Your task to perform on an android device: Clear the cart on ebay.com. Search for usb-a to usb-b on ebay.com, select the first entry, and add it to the cart. Image 0: 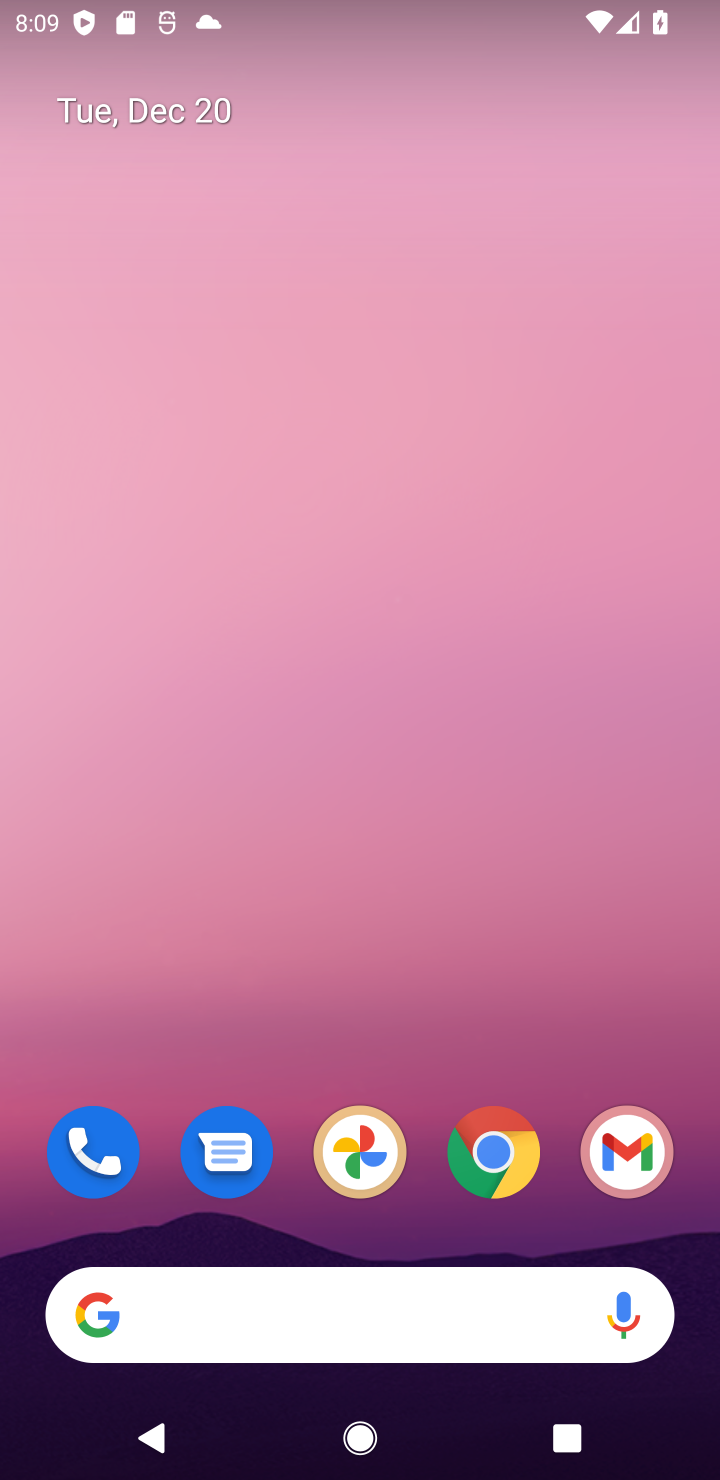
Step 0: click (507, 1153)
Your task to perform on an android device: Clear the cart on ebay.com. Search for usb-a to usb-b on ebay.com, select the first entry, and add it to the cart. Image 1: 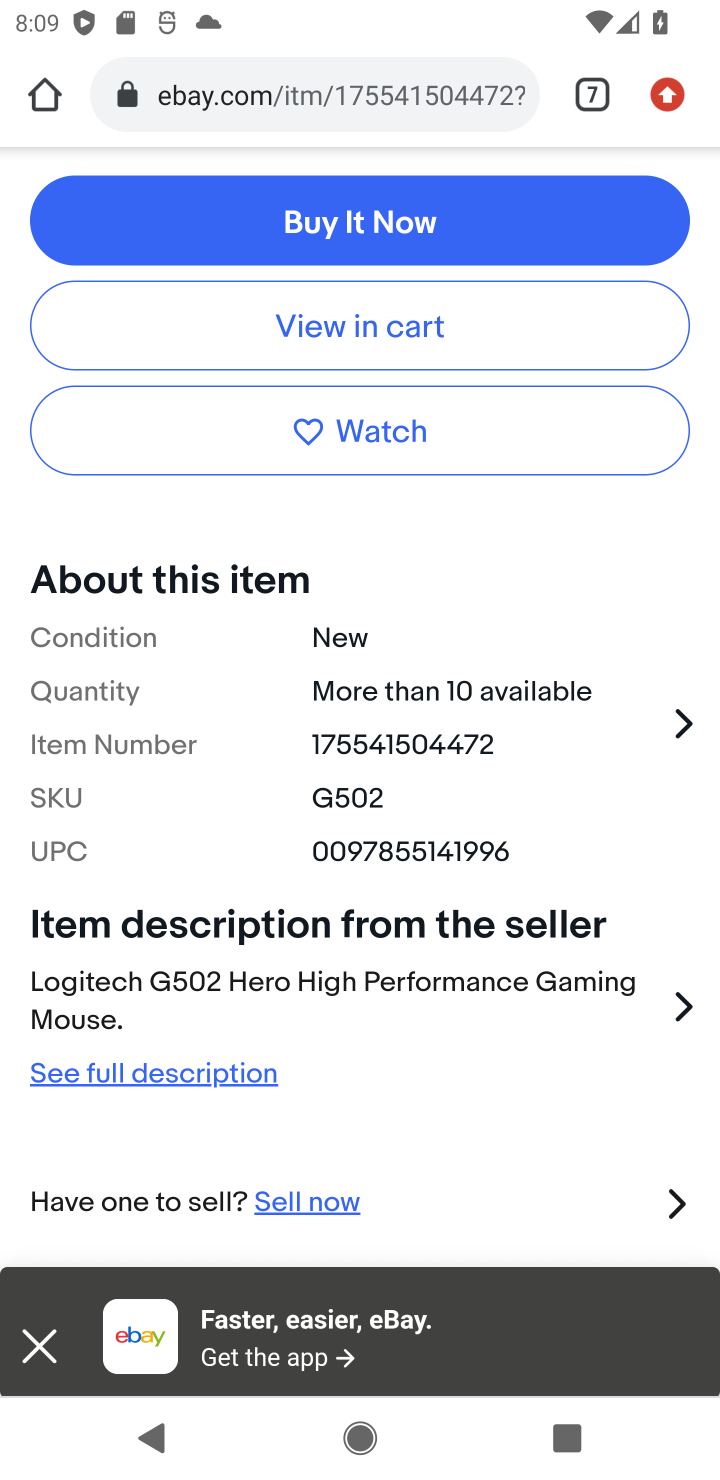
Step 1: click (500, 328)
Your task to perform on an android device: Clear the cart on ebay.com. Search for usb-a to usb-b on ebay.com, select the first entry, and add it to the cart. Image 2: 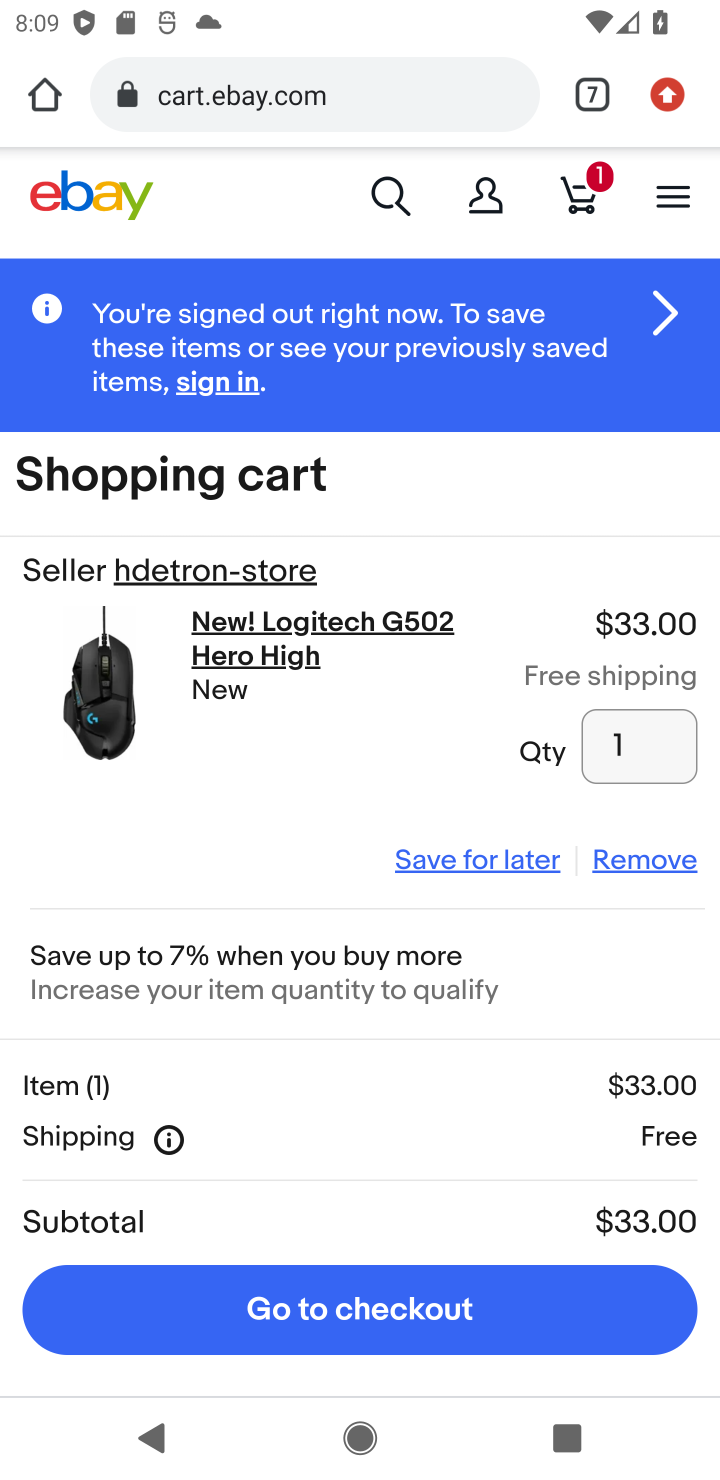
Step 2: click (637, 856)
Your task to perform on an android device: Clear the cart on ebay.com. Search for usb-a to usb-b on ebay.com, select the first entry, and add it to the cart. Image 3: 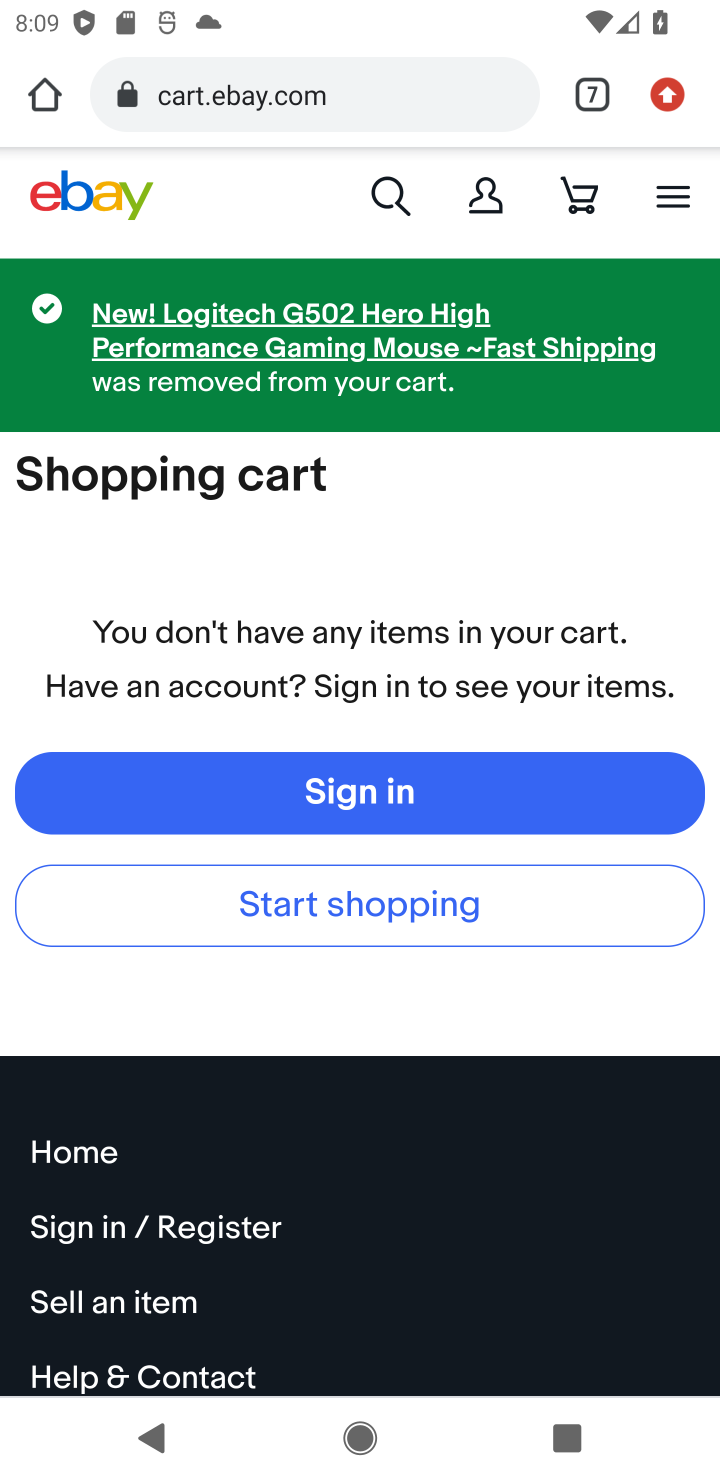
Step 3: click (386, 191)
Your task to perform on an android device: Clear the cart on ebay.com. Search for usb-a to usb-b on ebay.com, select the first entry, and add it to the cart. Image 4: 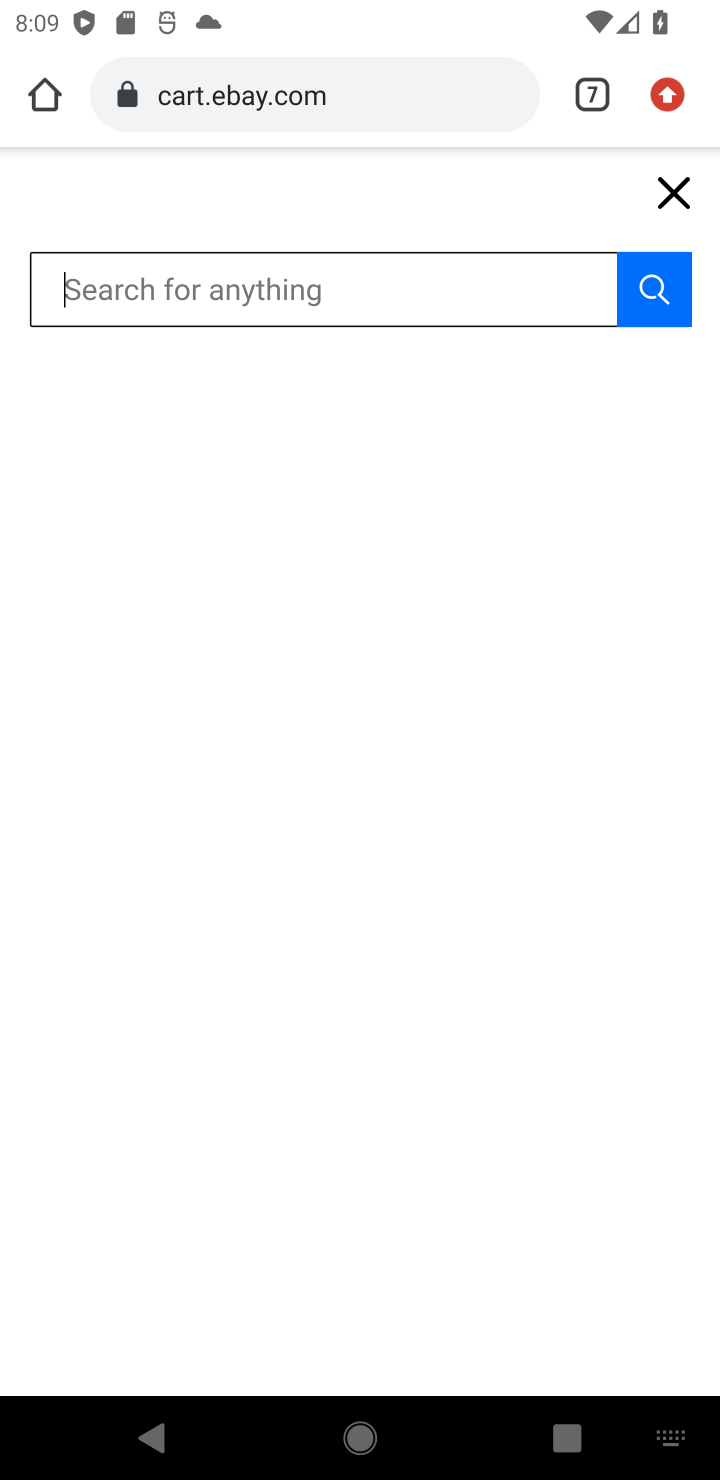
Step 4: type "usb-a to usb-b"
Your task to perform on an android device: Clear the cart on ebay.com. Search for usb-a to usb-b on ebay.com, select the first entry, and add it to the cart. Image 5: 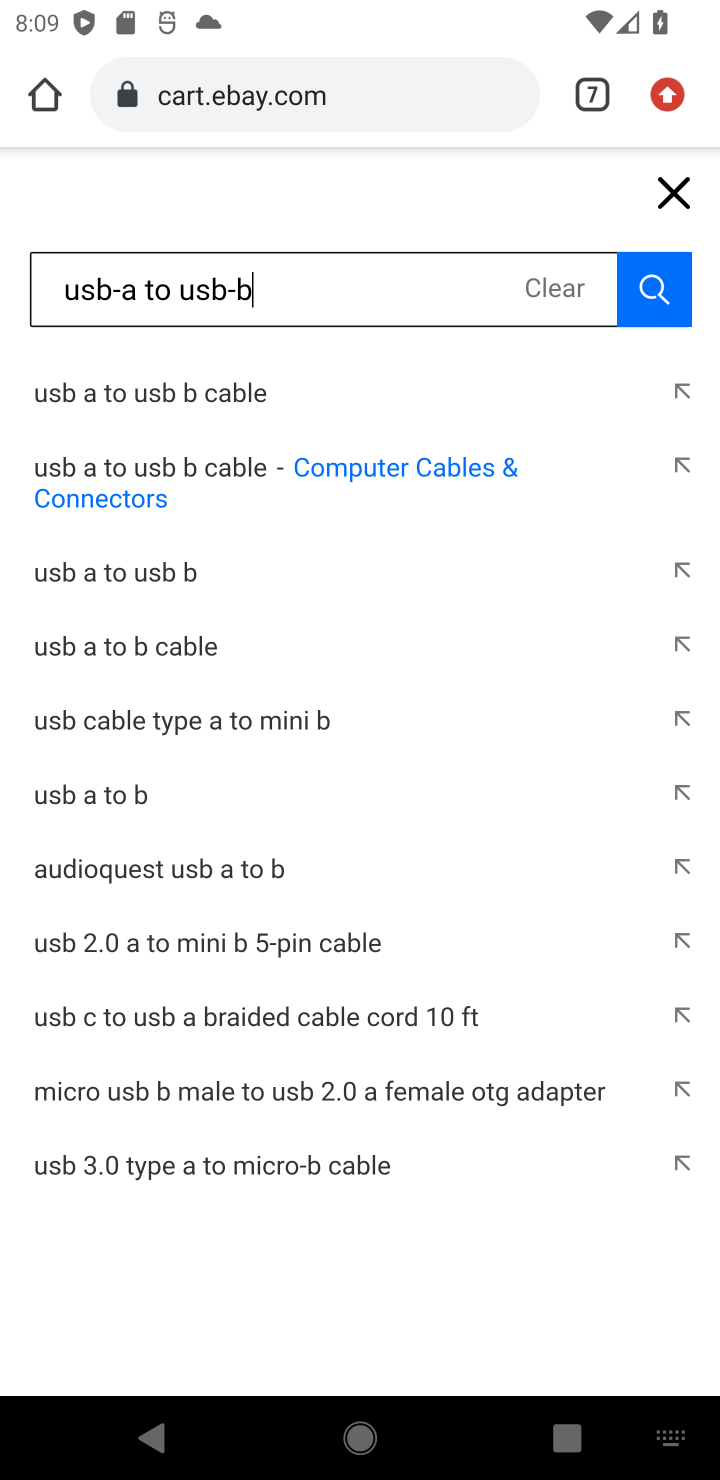
Step 5: click (214, 463)
Your task to perform on an android device: Clear the cart on ebay.com. Search for usb-a to usb-b on ebay.com, select the first entry, and add it to the cart. Image 6: 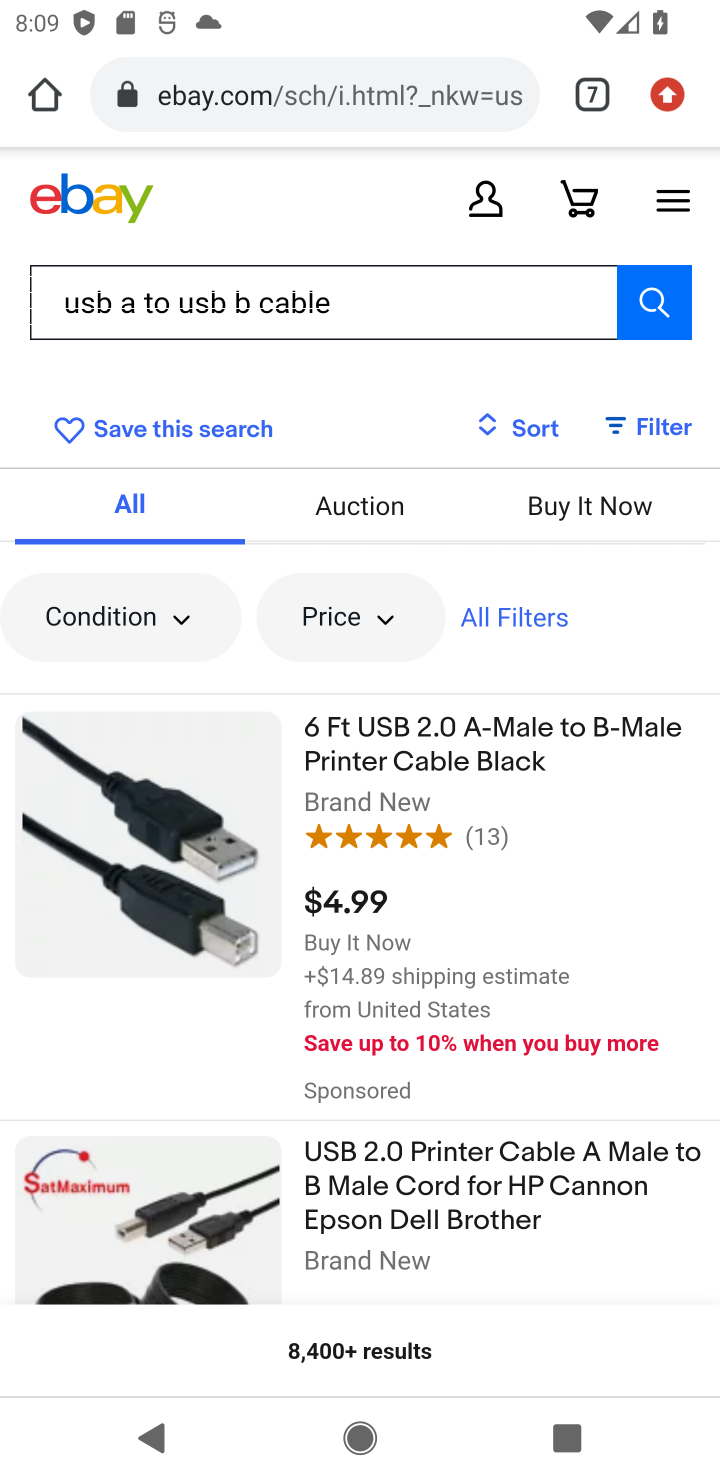
Step 6: click (450, 753)
Your task to perform on an android device: Clear the cart on ebay.com. Search for usb-a to usb-b on ebay.com, select the first entry, and add it to the cart. Image 7: 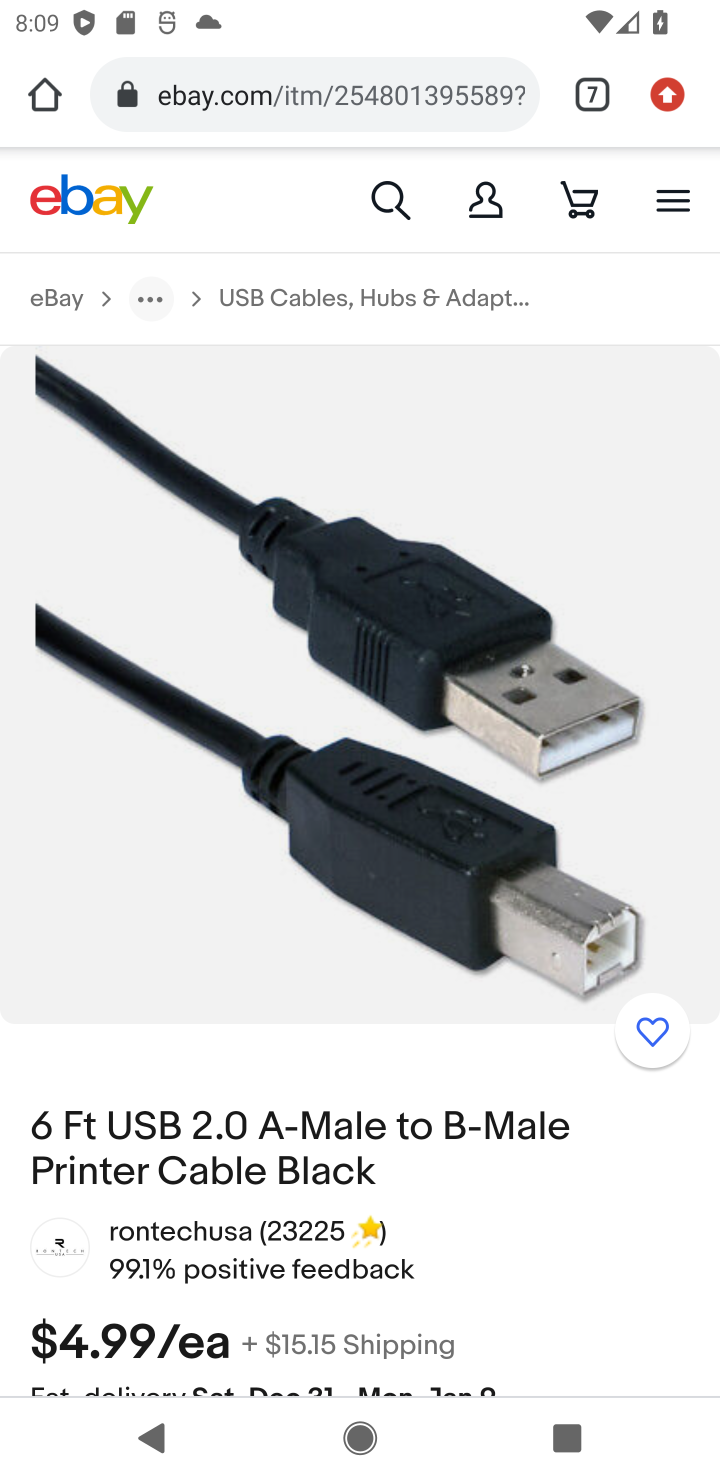
Step 7: drag from (459, 1276) to (575, 623)
Your task to perform on an android device: Clear the cart on ebay.com. Search for usb-a to usb-b on ebay.com, select the first entry, and add it to the cart. Image 8: 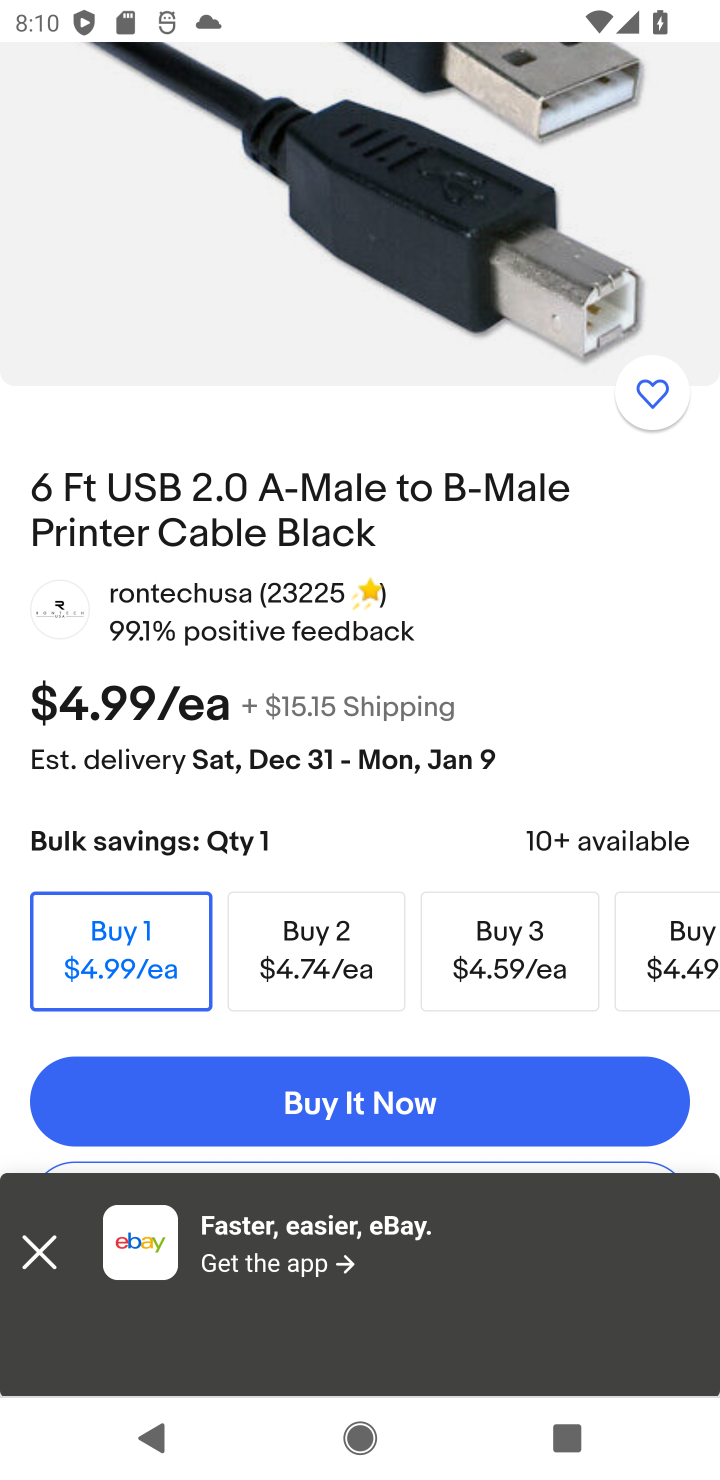
Step 8: drag from (450, 831) to (576, 200)
Your task to perform on an android device: Clear the cart on ebay.com. Search for usb-a to usb-b on ebay.com, select the first entry, and add it to the cart. Image 9: 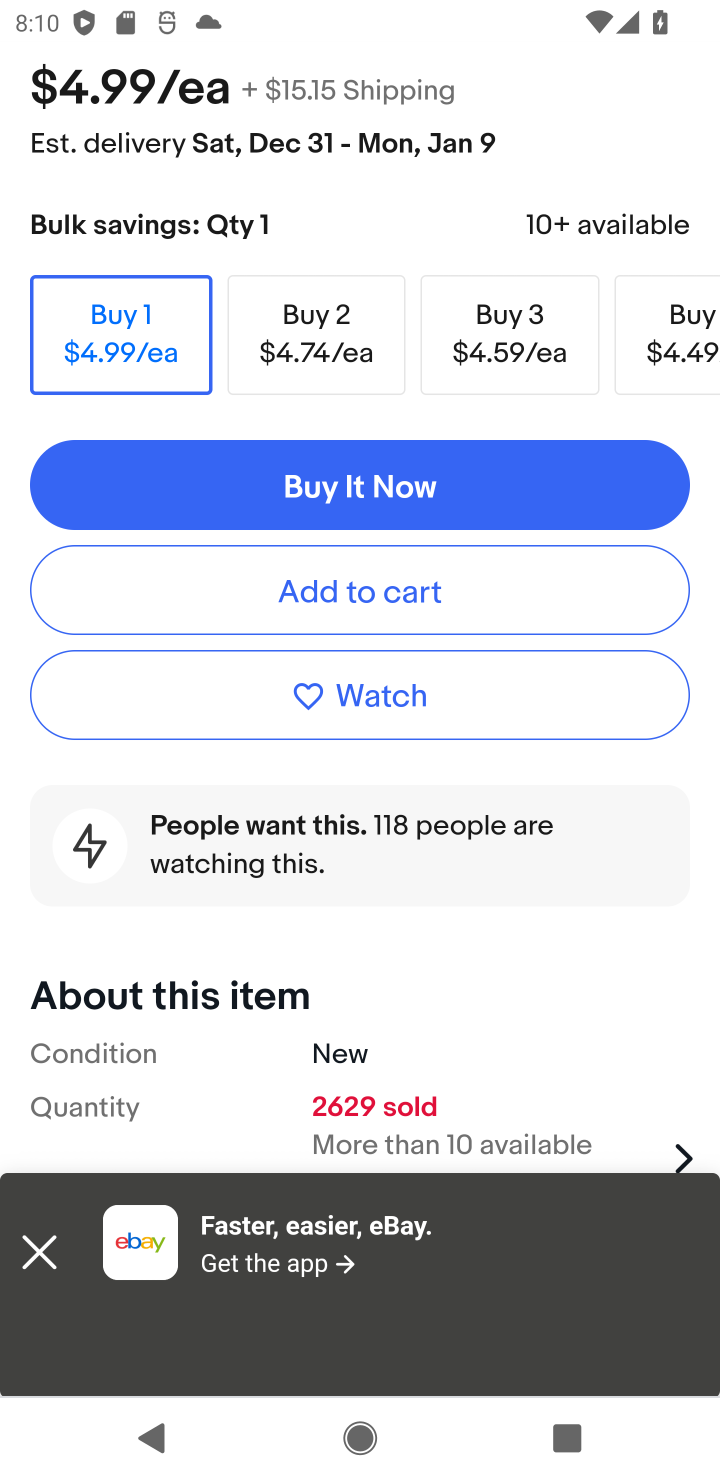
Step 9: click (424, 592)
Your task to perform on an android device: Clear the cart on ebay.com. Search for usb-a to usb-b on ebay.com, select the first entry, and add it to the cart. Image 10: 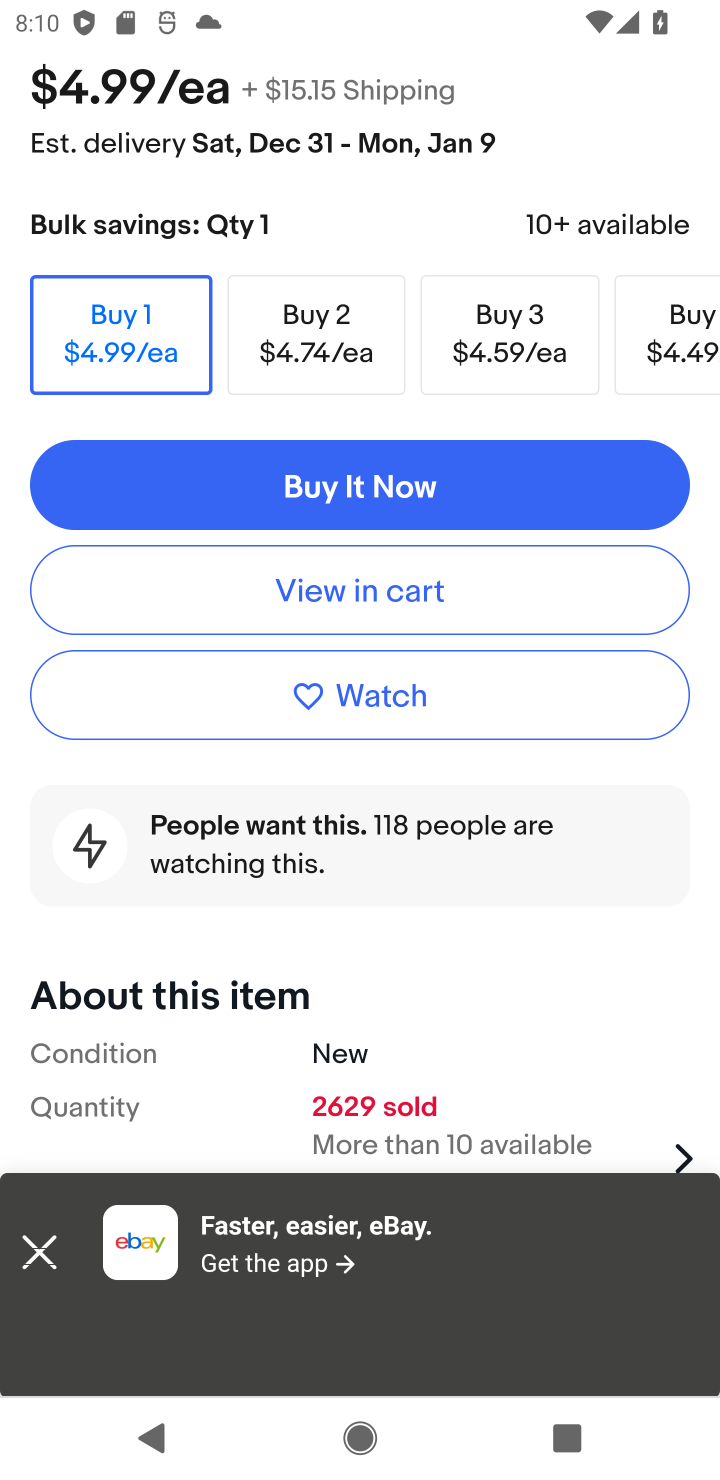
Step 10: task complete